Your task to perform on an android device: Open Google Chrome and click the shortcut for Amazon.com Image 0: 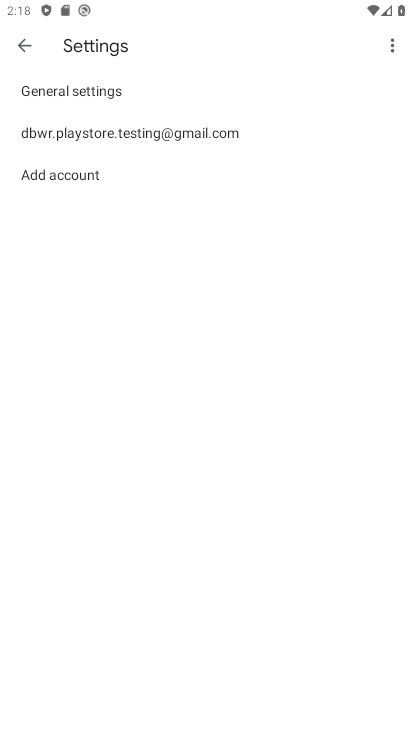
Step 0: press home button
Your task to perform on an android device: Open Google Chrome and click the shortcut for Amazon.com Image 1: 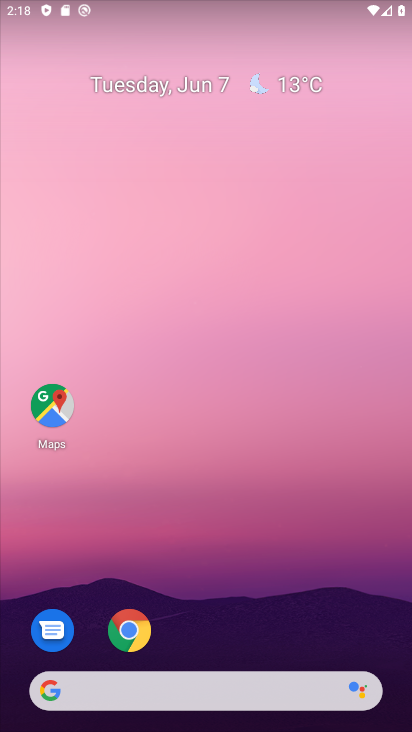
Step 1: click (135, 646)
Your task to perform on an android device: Open Google Chrome and click the shortcut for Amazon.com Image 2: 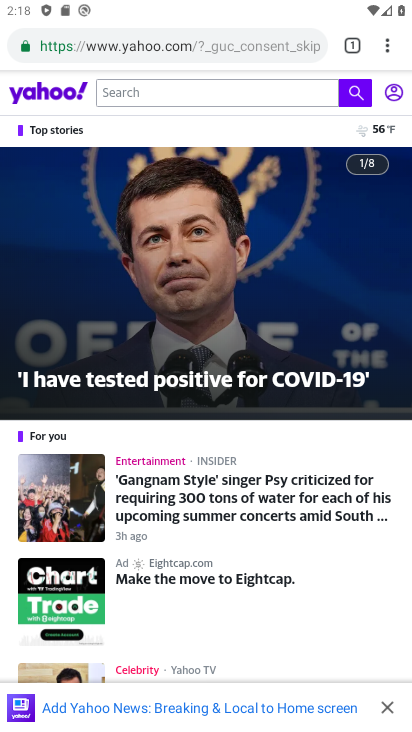
Step 2: click (178, 51)
Your task to perform on an android device: Open Google Chrome and click the shortcut for Amazon.com Image 3: 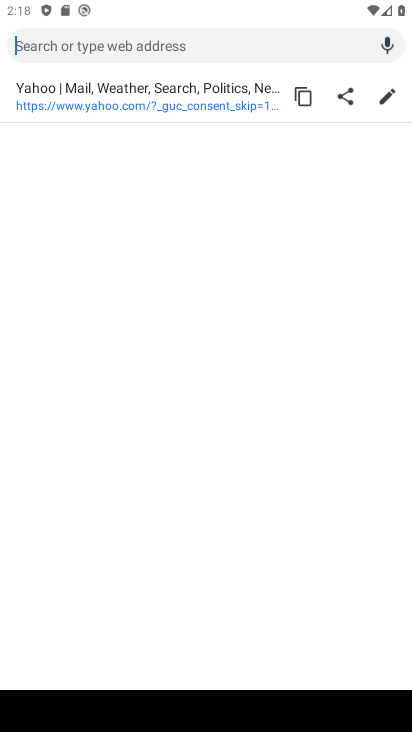
Step 3: type "amazon.com"
Your task to perform on an android device: Open Google Chrome and click the shortcut for Amazon.com Image 4: 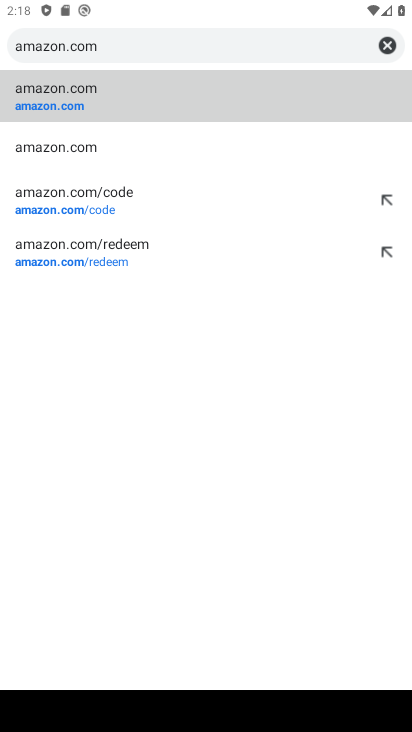
Step 4: click (92, 96)
Your task to perform on an android device: Open Google Chrome and click the shortcut for Amazon.com Image 5: 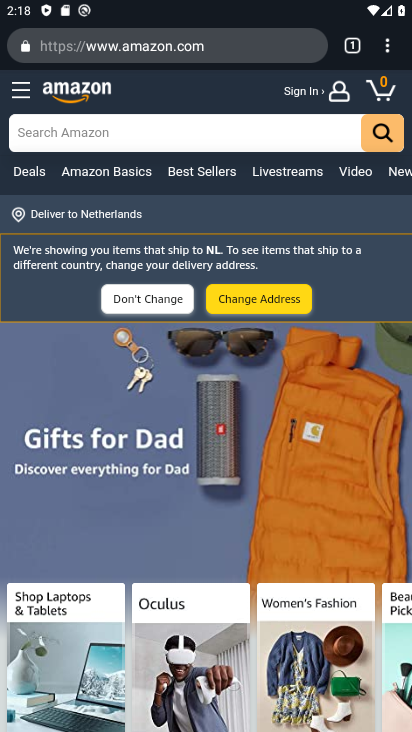
Step 5: task complete